Your task to perform on an android device: change the clock display to analog Image 0: 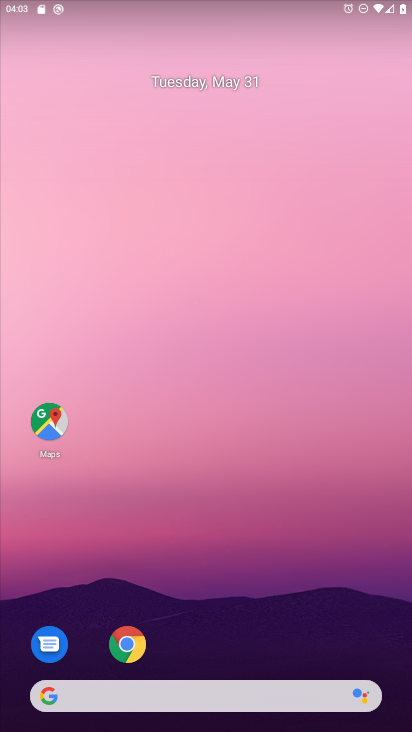
Step 0: drag from (254, 626) to (259, 123)
Your task to perform on an android device: change the clock display to analog Image 1: 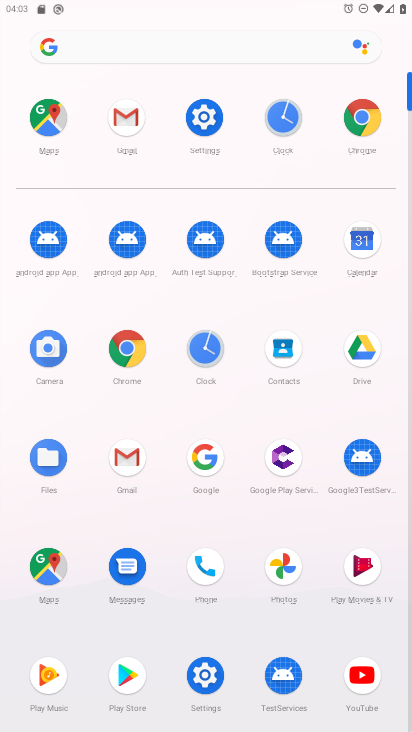
Step 1: click (213, 353)
Your task to perform on an android device: change the clock display to analog Image 2: 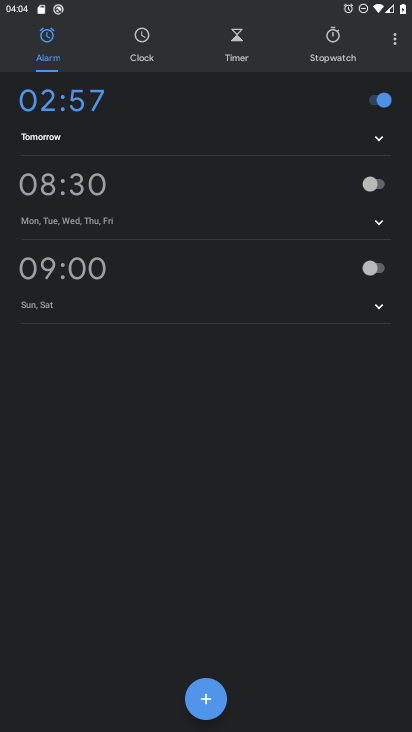
Step 2: click (390, 35)
Your task to perform on an android device: change the clock display to analog Image 3: 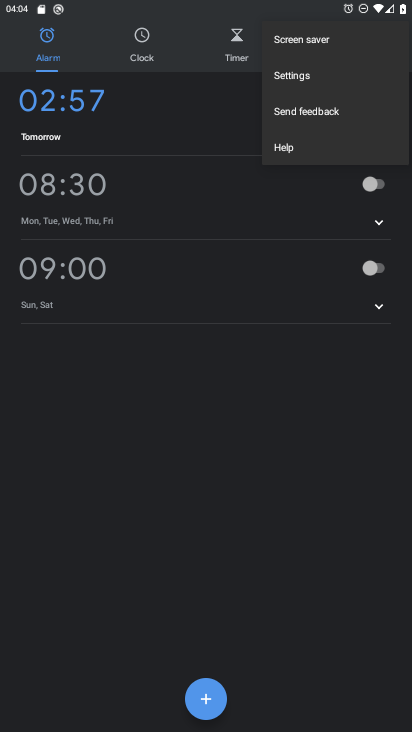
Step 3: click (296, 77)
Your task to perform on an android device: change the clock display to analog Image 4: 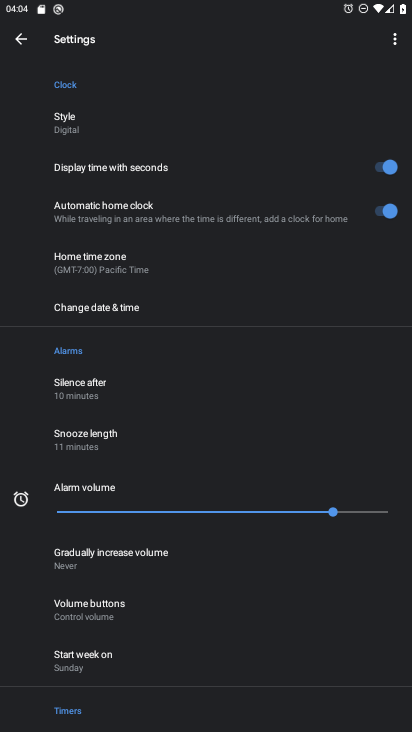
Step 4: click (83, 123)
Your task to perform on an android device: change the clock display to analog Image 5: 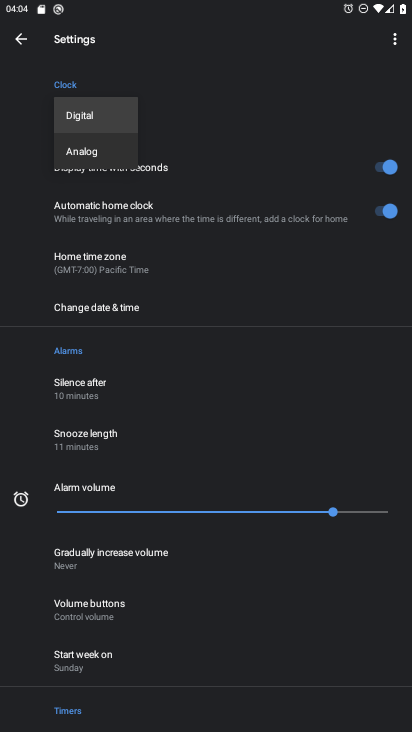
Step 5: click (111, 153)
Your task to perform on an android device: change the clock display to analog Image 6: 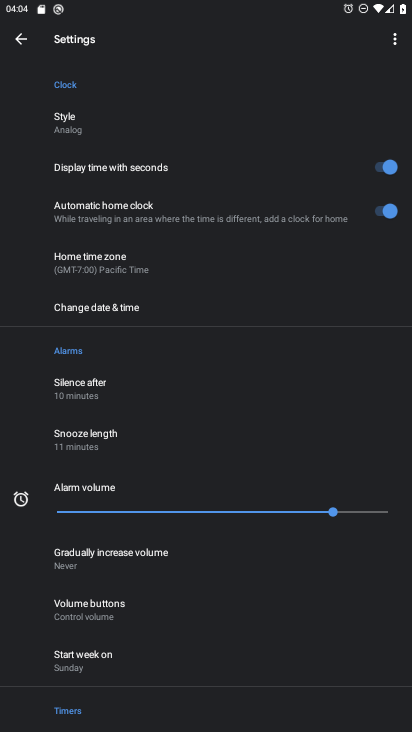
Step 6: task complete